Your task to perform on an android device: Go to Maps Image 0: 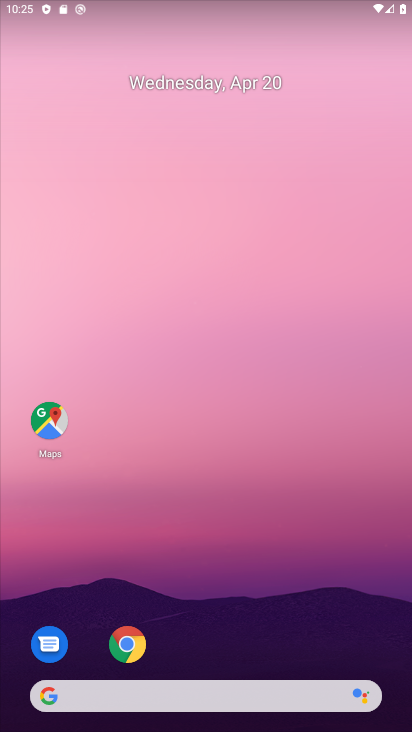
Step 0: click (53, 404)
Your task to perform on an android device: Go to Maps Image 1: 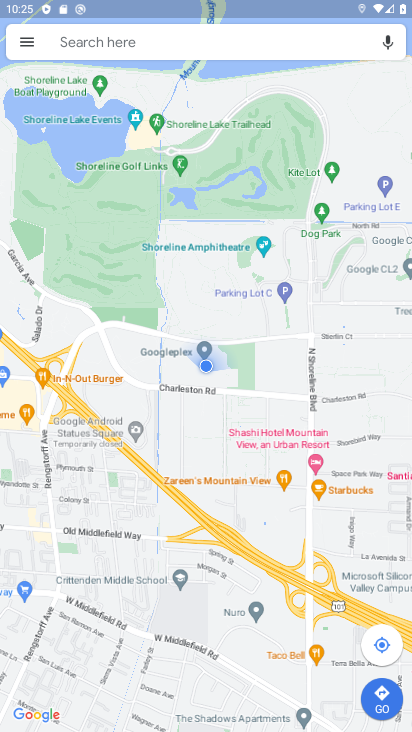
Step 1: task complete